Your task to perform on an android device: Open Android settings Image 0: 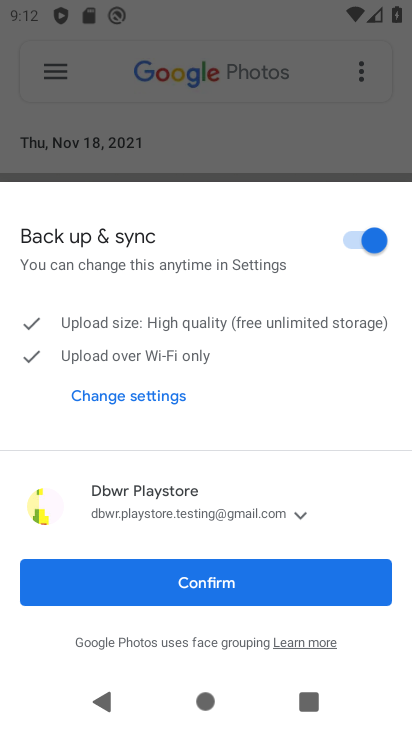
Step 0: press home button
Your task to perform on an android device: Open Android settings Image 1: 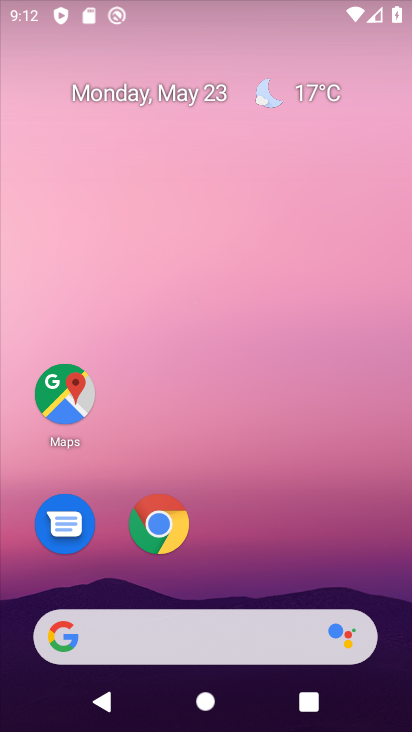
Step 1: drag from (222, 552) to (232, 61)
Your task to perform on an android device: Open Android settings Image 2: 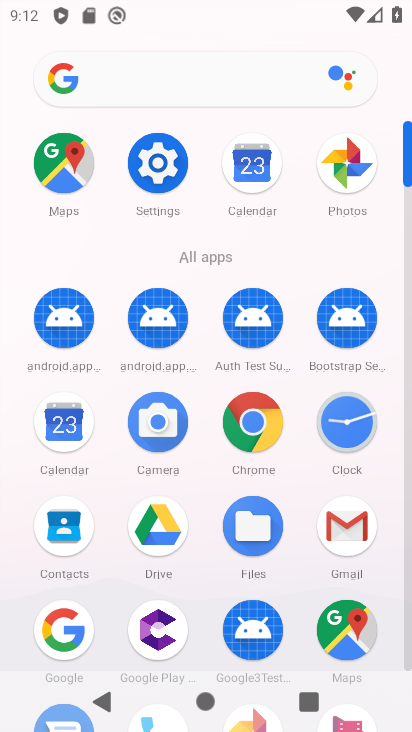
Step 2: click (159, 153)
Your task to perform on an android device: Open Android settings Image 3: 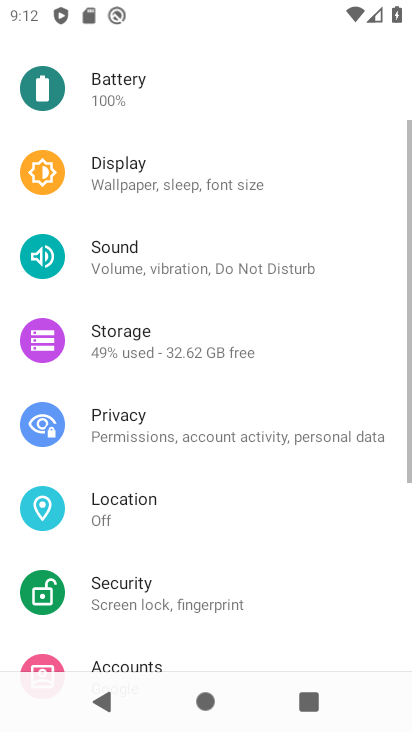
Step 3: task complete